Your task to perform on an android device: What's on my calendar today? Image 0: 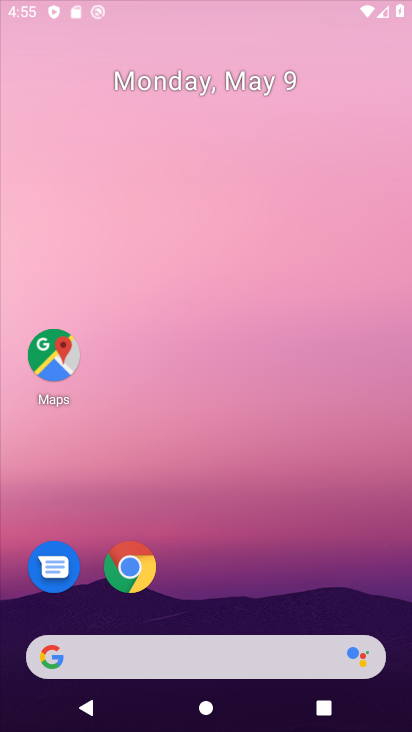
Step 0: drag from (295, 599) to (278, 125)
Your task to perform on an android device: What's on my calendar today? Image 1: 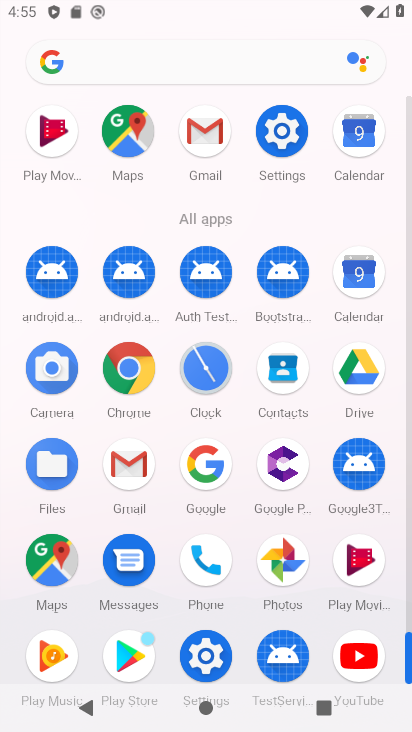
Step 1: click (355, 262)
Your task to perform on an android device: What's on my calendar today? Image 2: 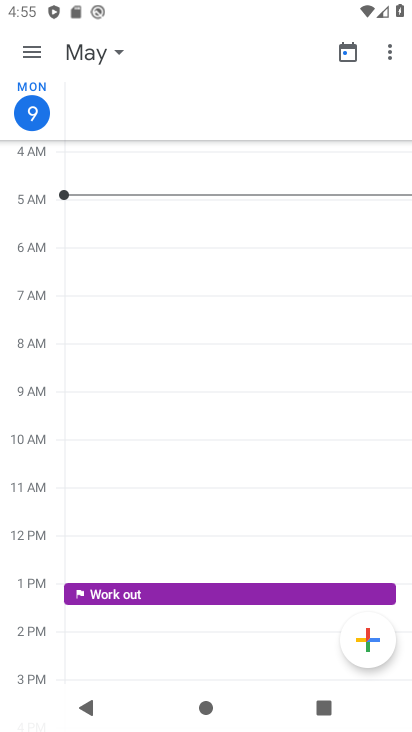
Step 2: click (41, 51)
Your task to perform on an android device: What's on my calendar today? Image 3: 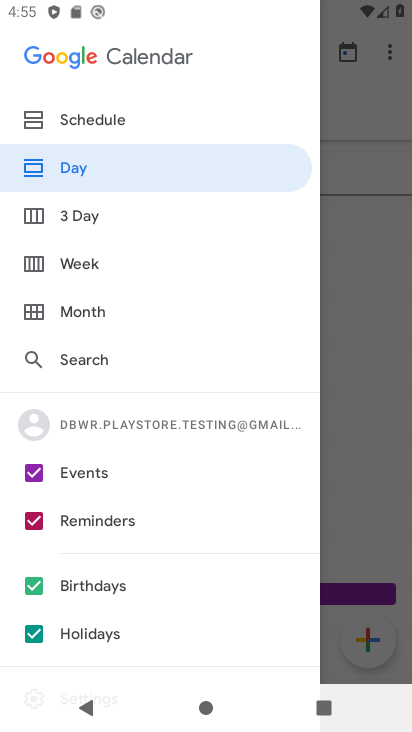
Step 3: click (91, 132)
Your task to perform on an android device: What's on my calendar today? Image 4: 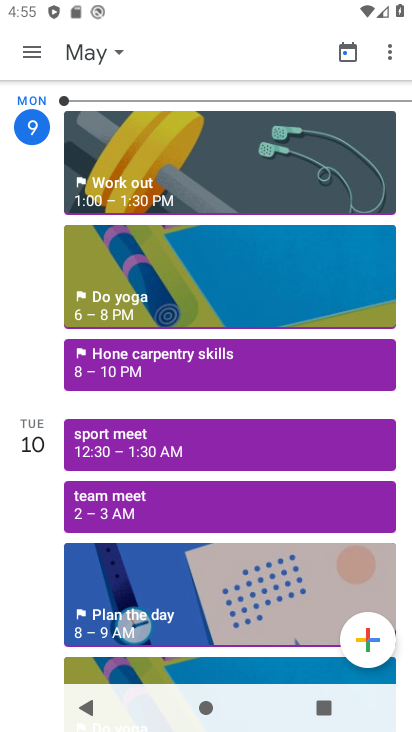
Step 4: task complete